Your task to perform on an android device: turn off wifi Image 0: 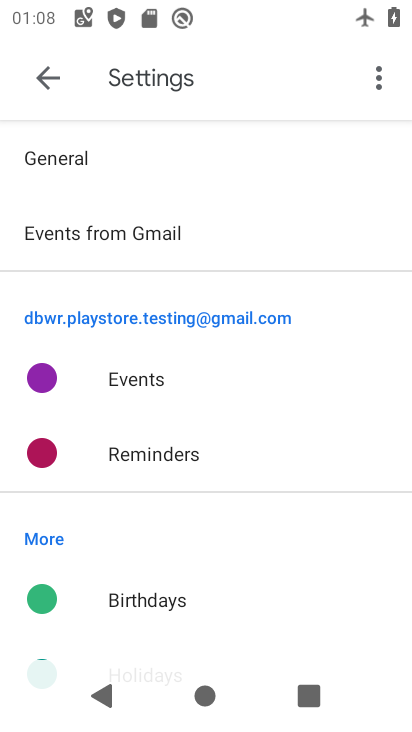
Step 0: press home button
Your task to perform on an android device: turn off wifi Image 1: 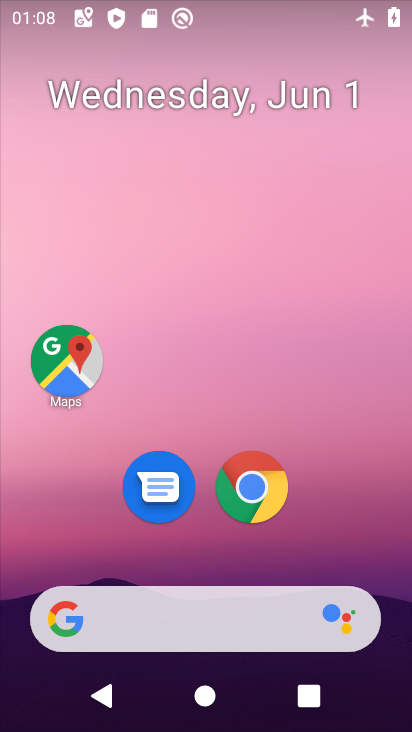
Step 1: drag from (323, 537) to (341, 197)
Your task to perform on an android device: turn off wifi Image 2: 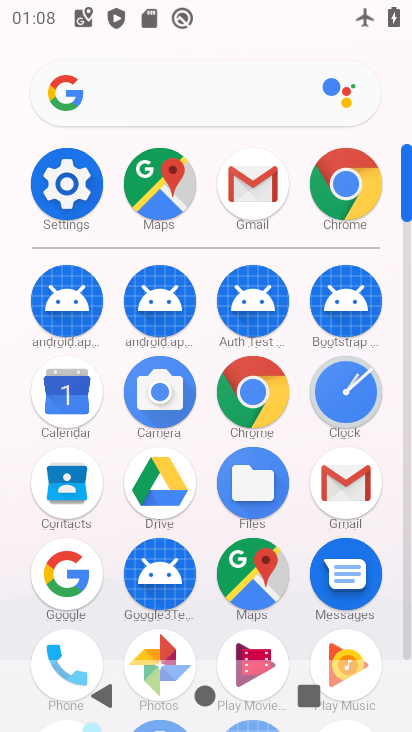
Step 2: click (54, 181)
Your task to perform on an android device: turn off wifi Image 3: 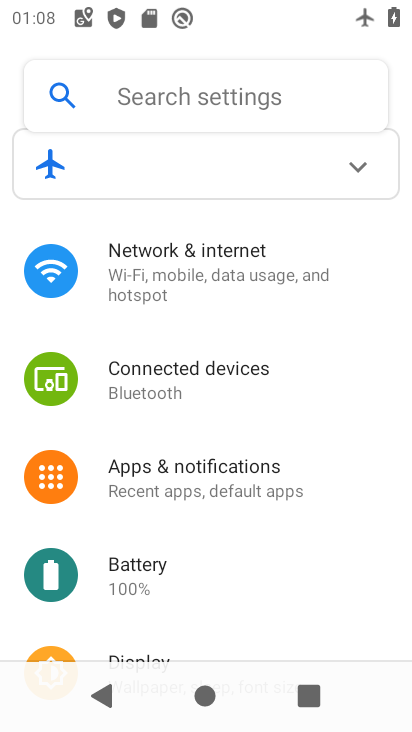
Step 3: click (191, 259)
Your task to perform on an android device: turn off wifi Image 4: 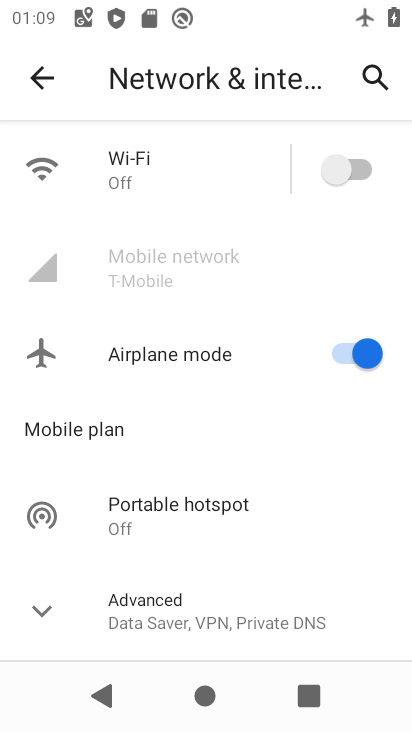
Step 4: task complete